Your task to perform on an android device: turn off location history Image 0: 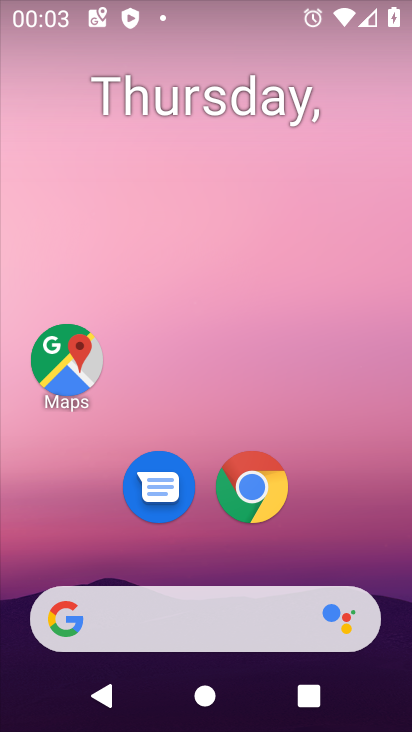
Step 0: click (58, 365)
Your task to perform on an android device: turn off location history Image 1: 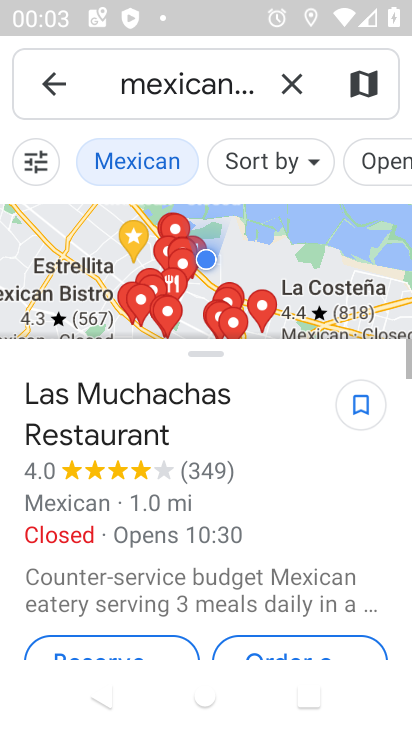
Step 1: click (291, 85)
Your task to perform on an android device: turn off location history Image 2: 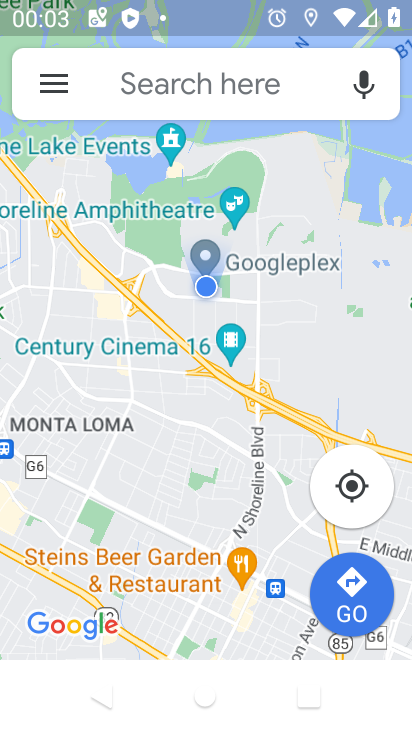
Step 2: click (55, 87)
Your task to perform on an android device: turn off location history Image 3: 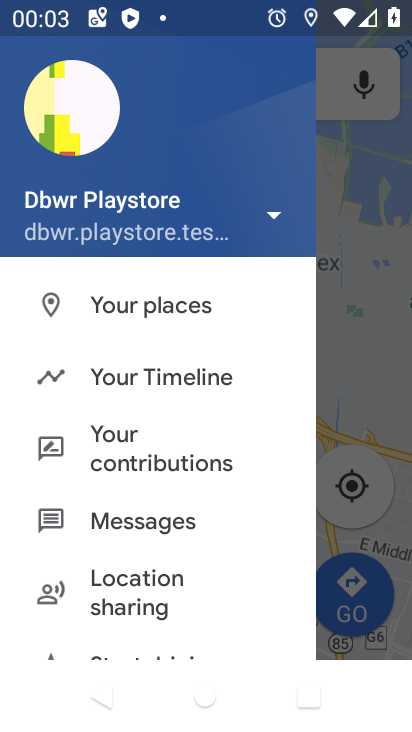
Step 3: click (157, 374)
Your task to perform on an android device: turn off location history Image 4: 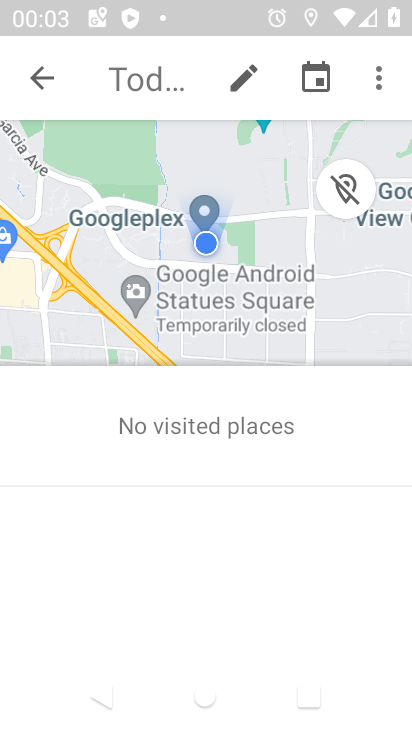
Step 4: click (381, 82)
Your task to perform on an android device: turn off location history Image 5: 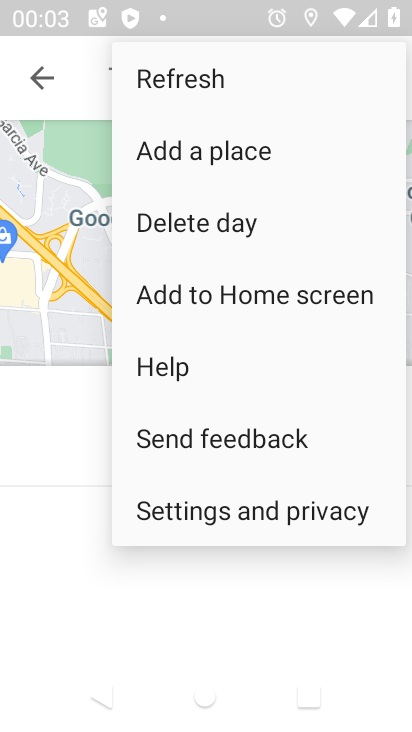
Step 5: click (231, 511)
Your task to perform on an android device: turn off location history Image 6: 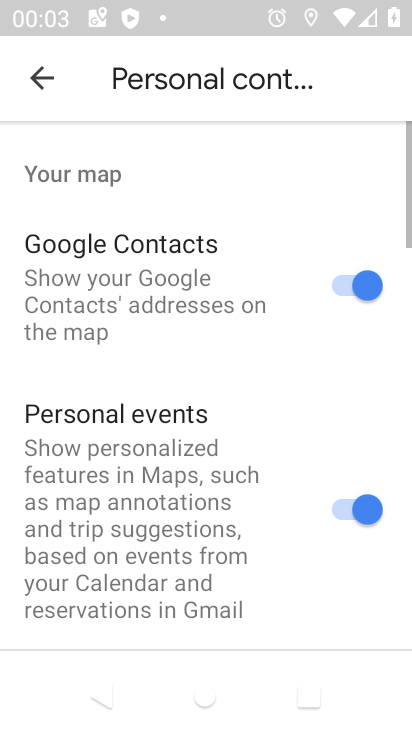
Step 6: drag from (219, 542) to (219, 129)
Your task to perform on an android device: turn off location history Image 7: 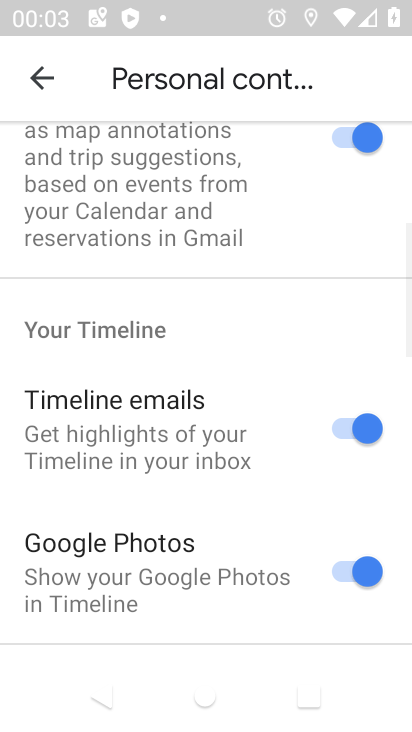
Step 7: drag from (152, 479) to (157, 71)
Your task to perform on an android device: turn off location history Image 8: 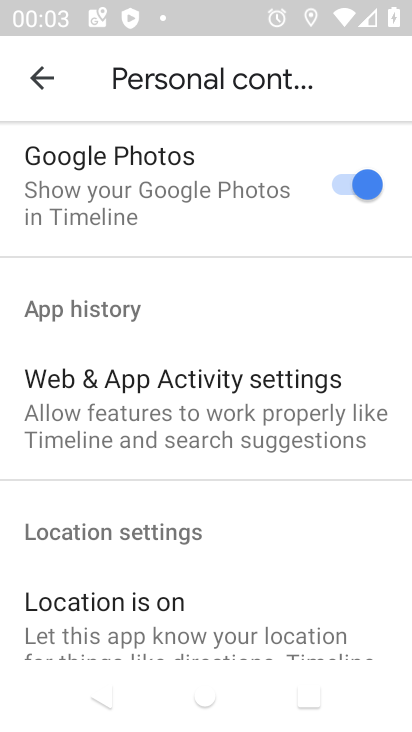
Step 8: drag from (153, 420) to (152, 97)
Your task to perform on an android device: turn off location history Image 9: 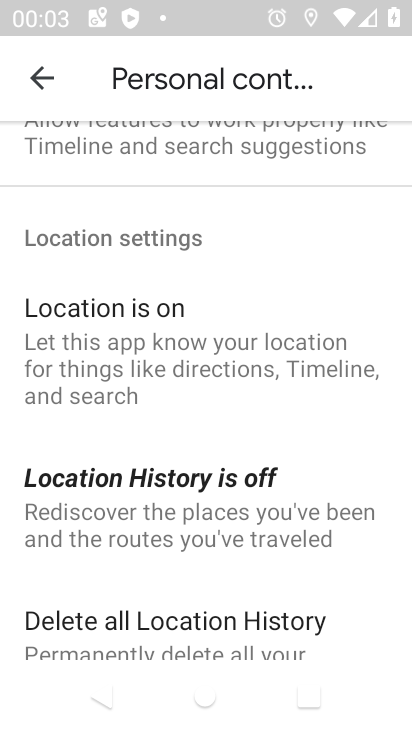
Step 9: click (150, 512)
Your task to perform on an android device: turn off location history Image 10: 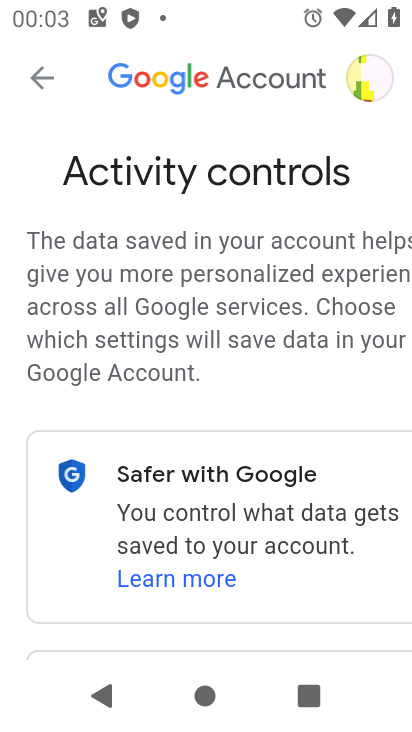
Step 10: drag from (207, 519) to (169, 5)
Your task to perform on an android device: turn off location history Image 11: 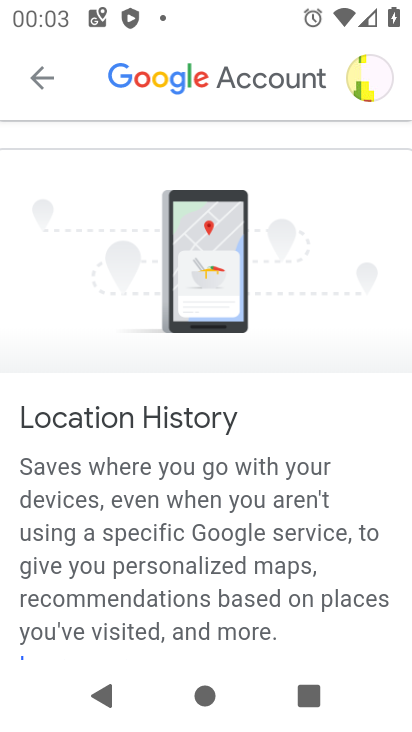
Step 11: drag from (188, 521) to (168, 115)
Your task to perform on an android device: turn off location history Image 12: 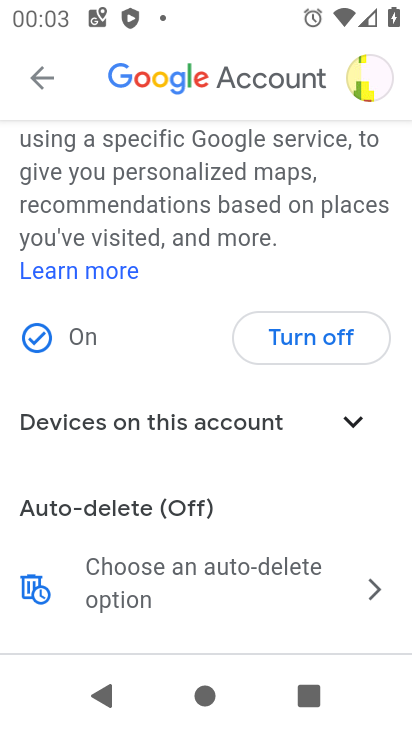
Step 12: click (328, 338)
Your task to perform on an android device: turn off location history Image 13: 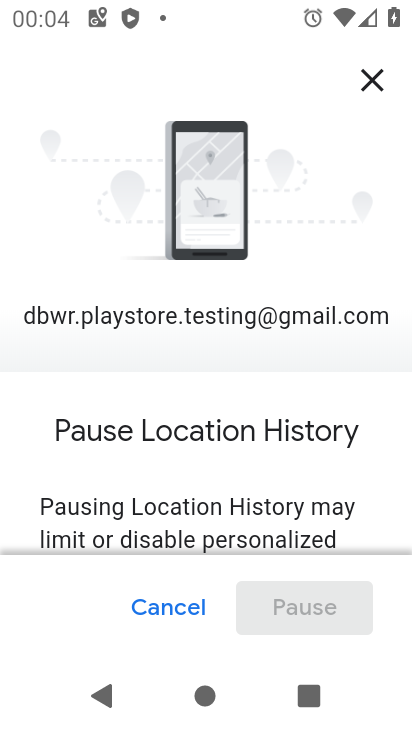
Step 13: drag from (186, 509) to (155, 21)
Your task to perform on an android device: turn off location history Image 14: 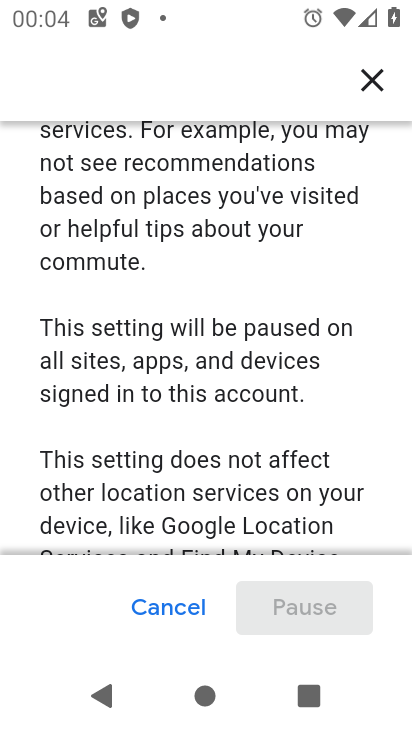
Step 14: drag from (133, 428) to (109, 9)
Your task to perform on an android device: turn off location history Image 15: 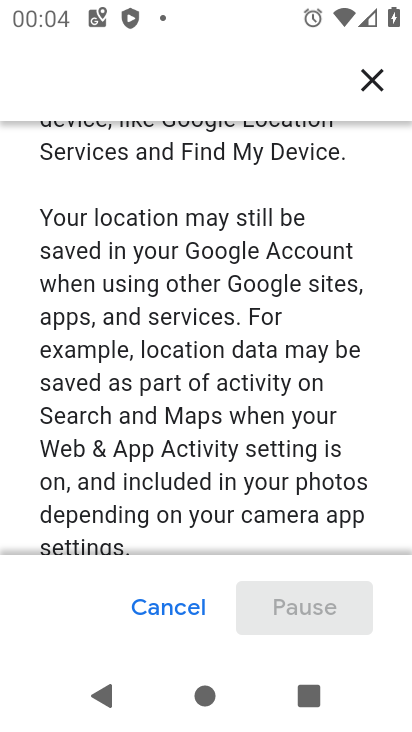
Step 15: drag from (204, 478) to (154, 38)
Your task to perform on an android device: turn off location history Image 16: 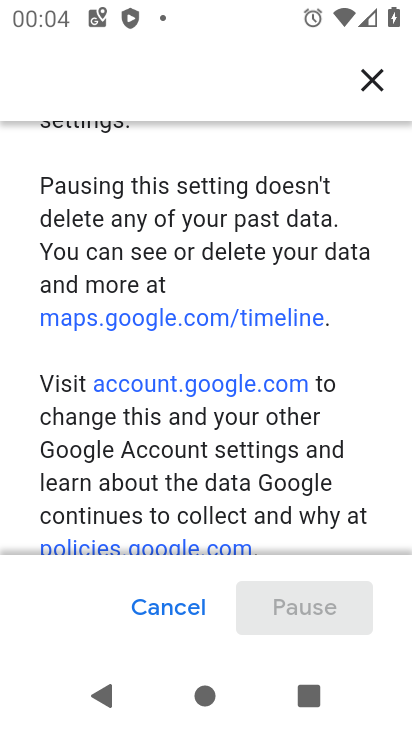
Step 16: drag from (224, 484) to (177, 16)
Your task to perform on an android device: turn off location history Image 17: 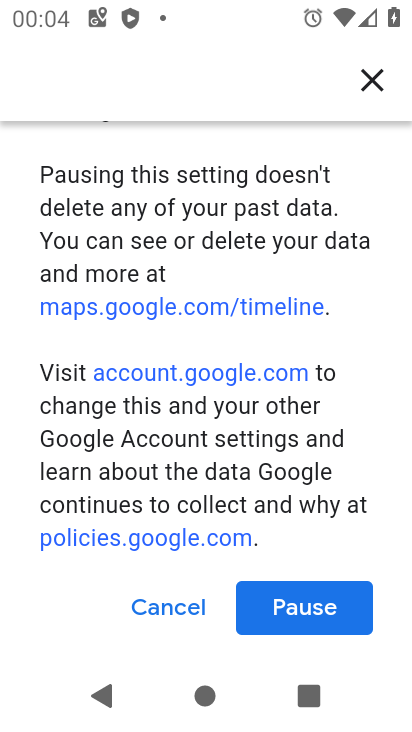
Step 17: click (301, 612)
Your task to perform on an android device: turn off location history Image 18: 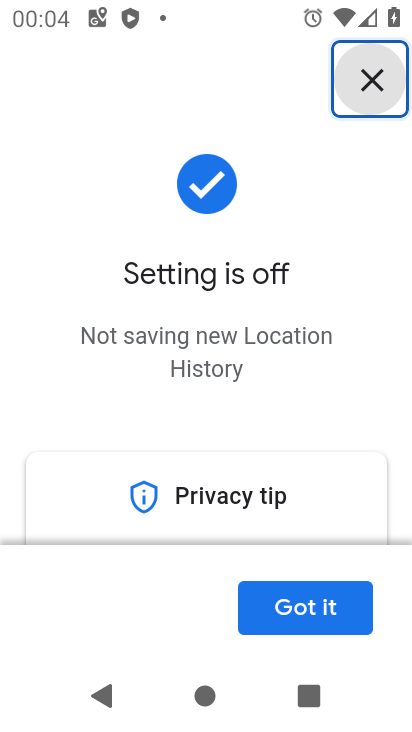
Step 18: click (293, 620)
Your task to perform on an android device: turn off location history Image 19: 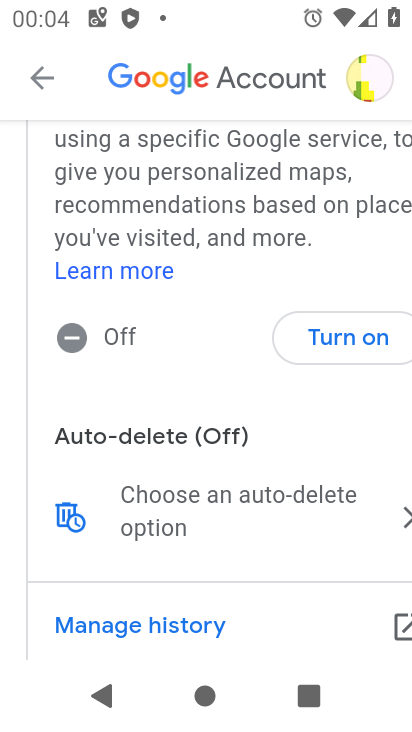
Step 19: task complete